Your task to perform on an android device: Open Chrome and go to the settings page Image 0: 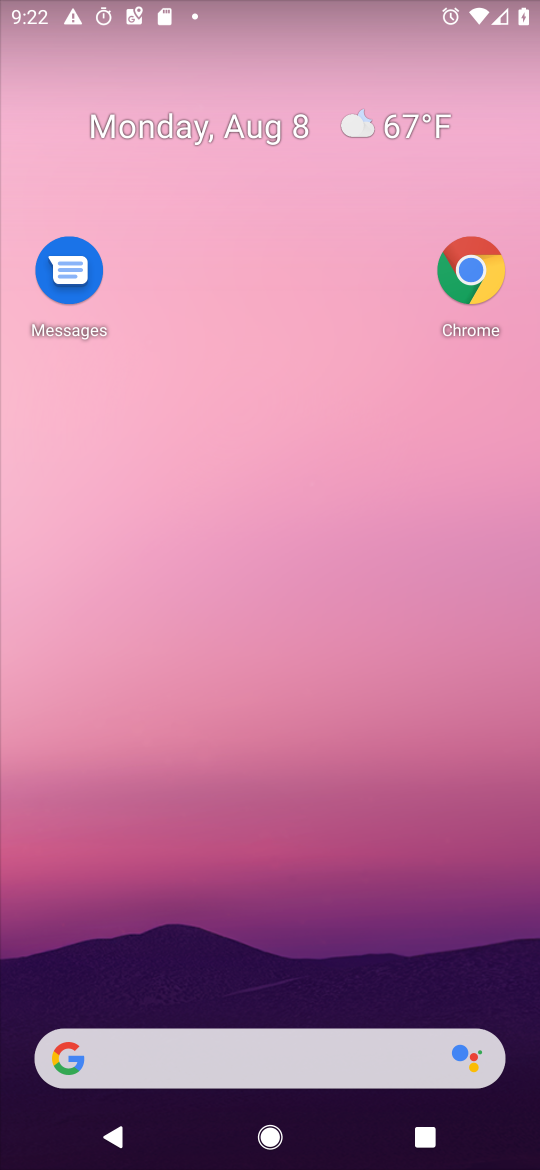
Step 0: click (286, 270)
Your task to perform on an android device: Open Chrome and go to the settings page Image 1: 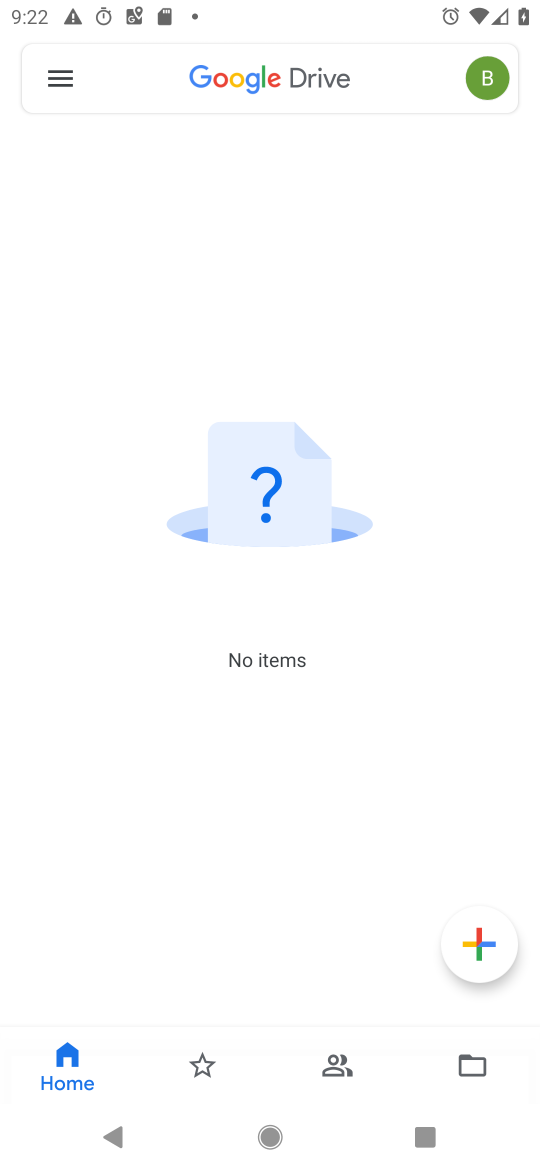
Step 1: press home button
Your task to perform on an android device: Open Chrome and go to the settings page Image 2: 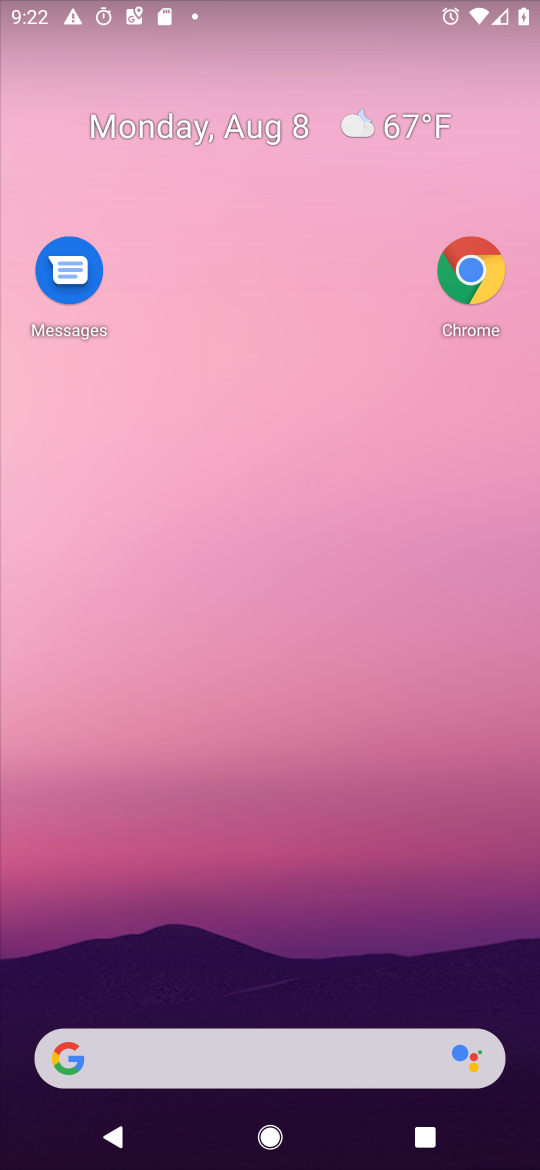
Step 2: click (480, 269)
Your task to perform on an android device: Open Chrome and go to the settings page Image 3: 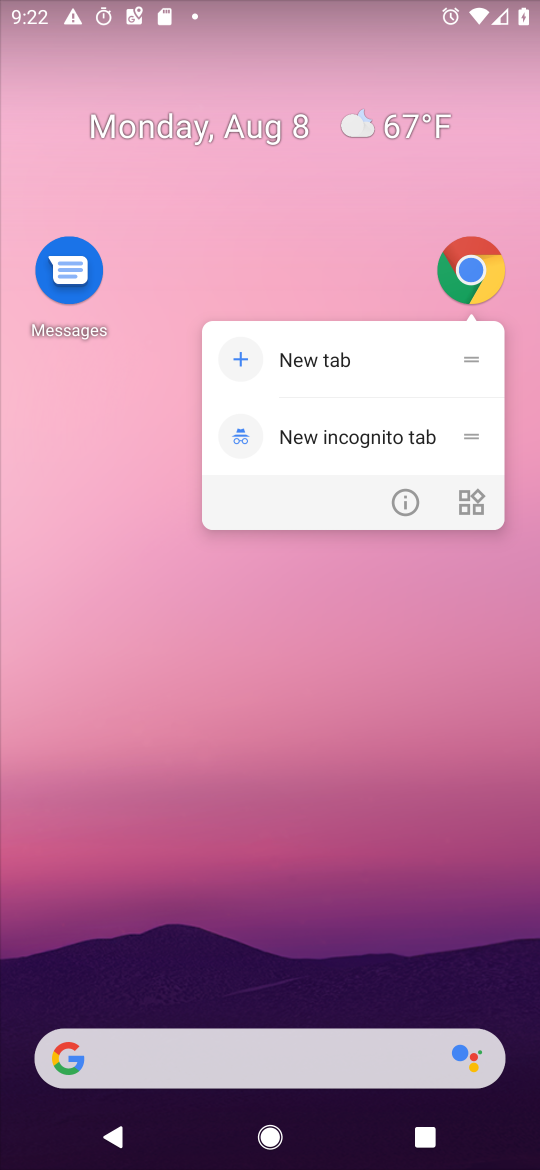
Step 3: click (402, 512)
Your task to perform on an android device: Open Chrome and go to the settings page Image 4: 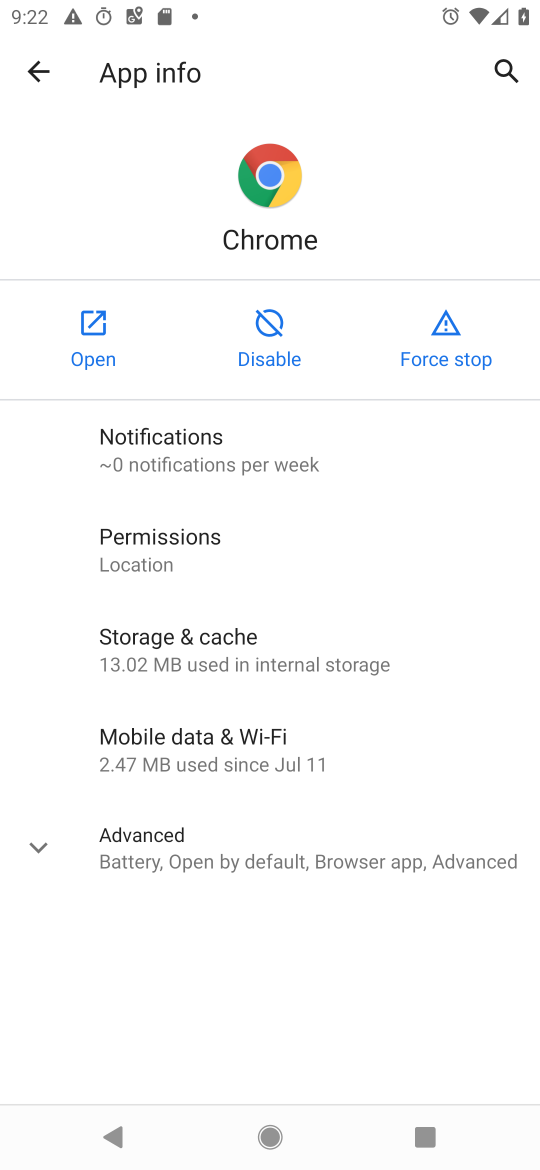
Step 4: click (92, 343)
Your task to perform on an android device: Open Chrome and go to the settings page Image 5: 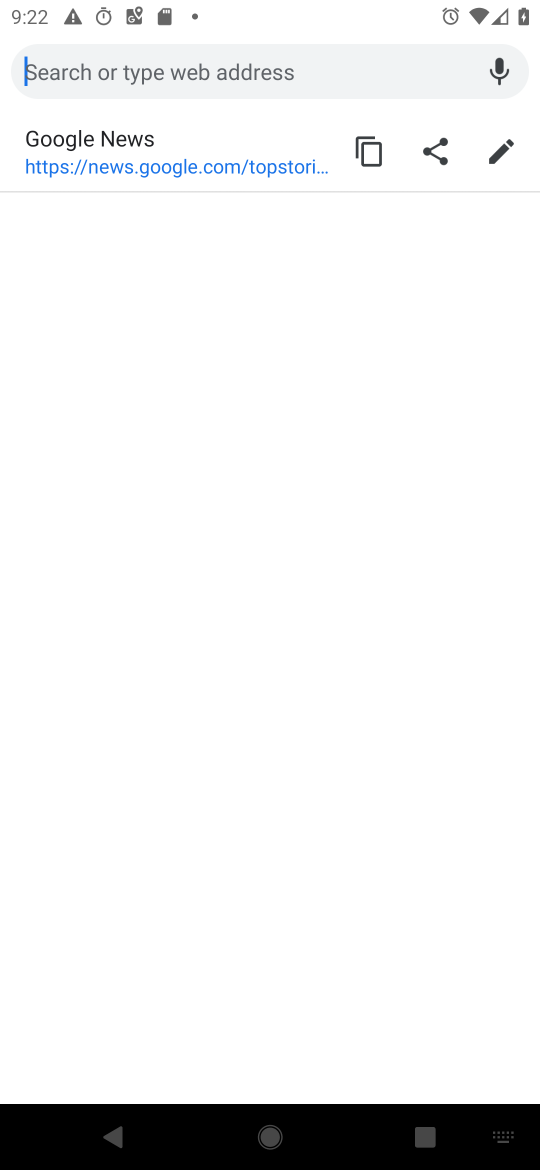
Step 5: task complete